Your task to perform on an android device: What's the weather going to be tomorrow? Image 0: 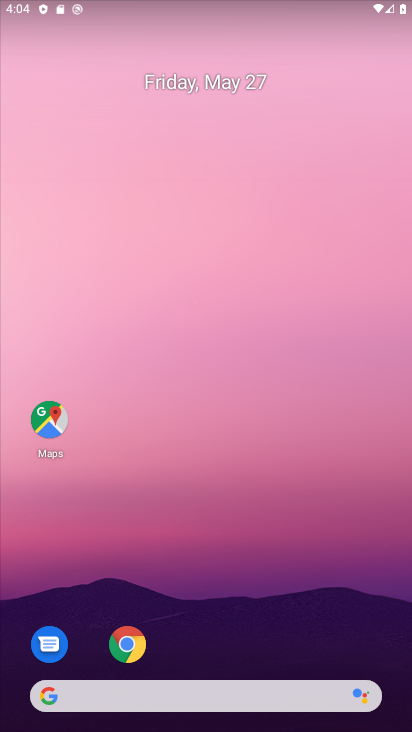
Step 0: click (218, 699)
Your task to perform on an android device: What's the weather going to be tomorrow? Image 1: 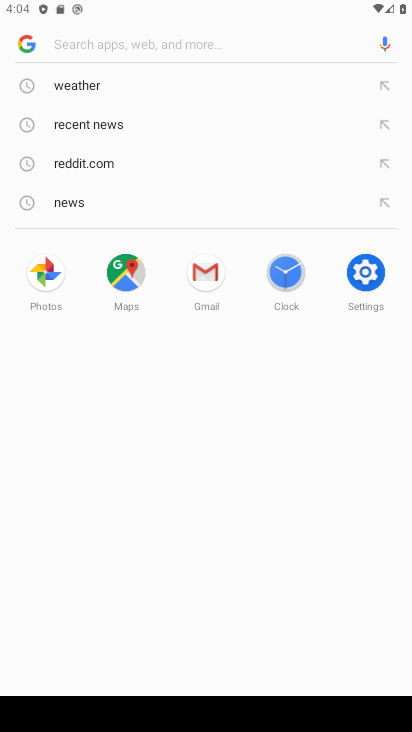
Step 1: click (144, 88)
Your task to perform on an android device: What's the weather going to be tomorrow? Image 2: 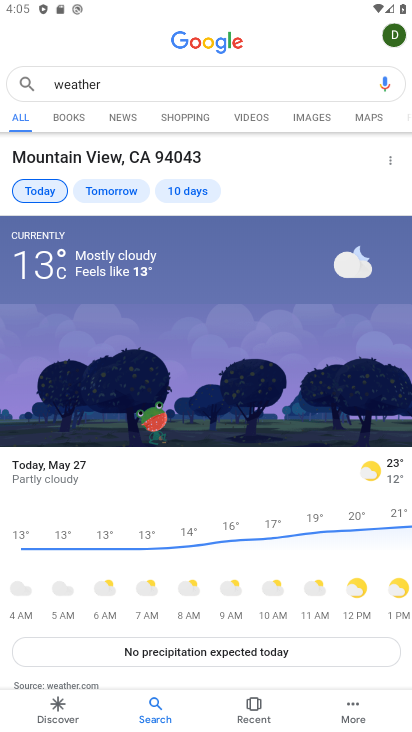
Step 2: click (130, 187)
Your task to perform on an android device: What's the weather going to be tomorrow? Image 3: 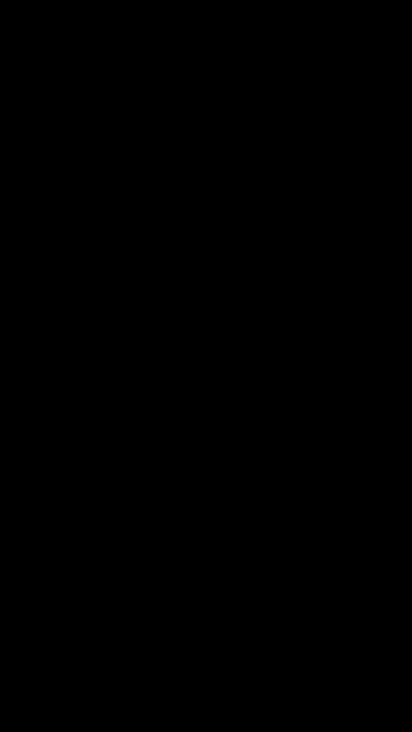
Step 3: drag from (76, 602) to (154, 297)
Your task to perform on an android device: What's the weather going to be tomorrow? Image 4: 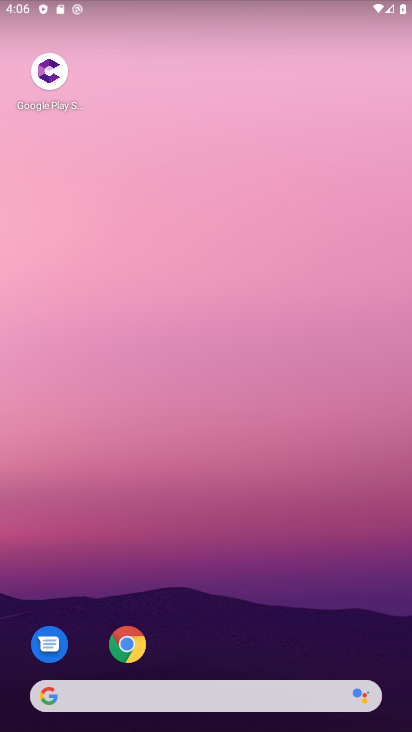
Step 4: click (201, 704)
Your task to perform on an android device: What's the weather going to be tomorrow? Image 5: 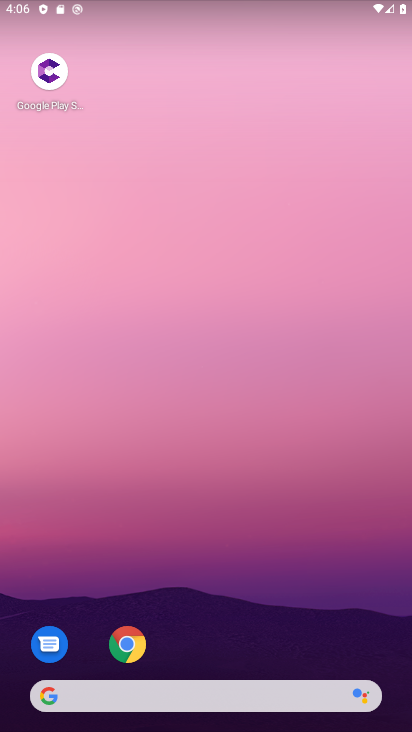
Step 5: click (206, 691)
Your task to perform on an android device: What's the weather going to be tomorrow? Image 6: 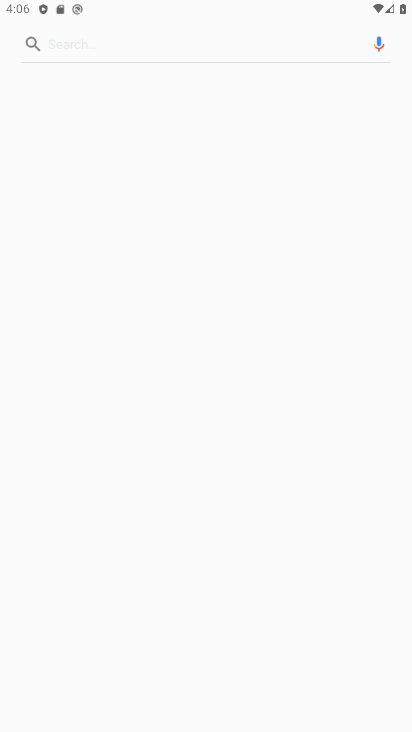
Step 6: task complete